Your task to perform on an android device: Open Yahoo.com Image 0: 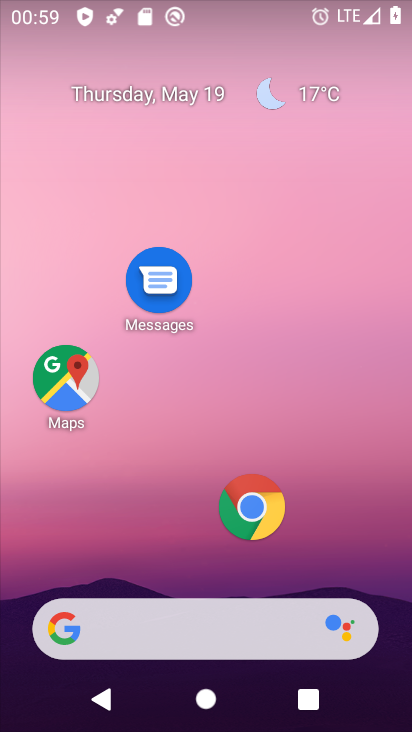
Step 0: click (274, 503)
Your task to perform on an android device: Open Yahoo.com Image 1: 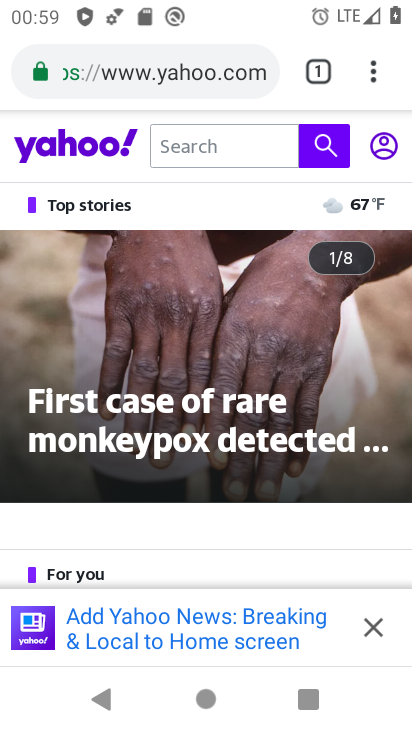
Step 1: task complete